Your task to perform on an android device: Go to display settings Image 0: 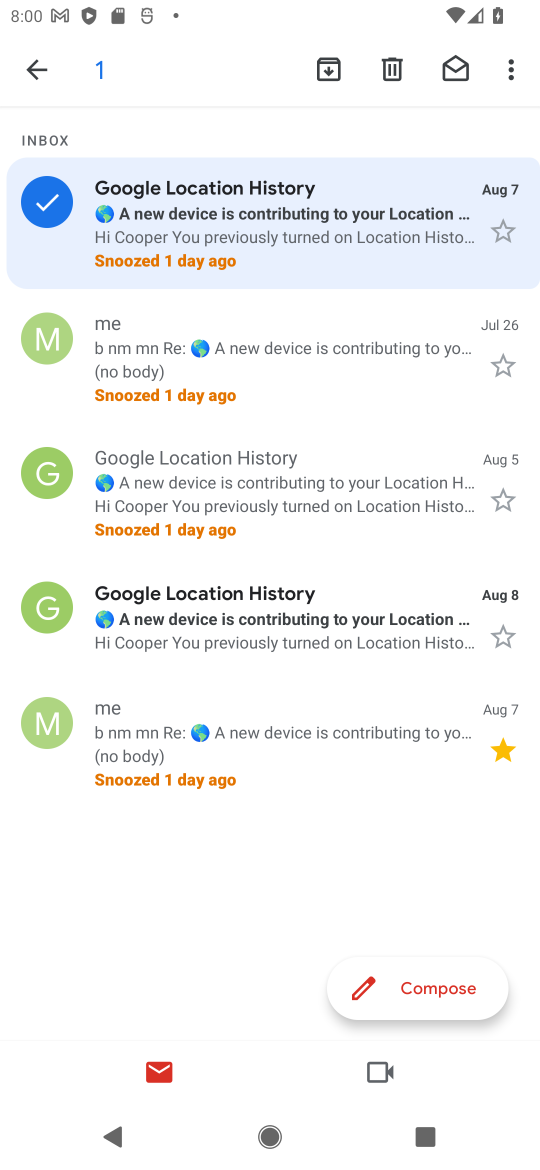
Step 0: press home button
Your task to perform on an android device: Go to display settings Image 1: 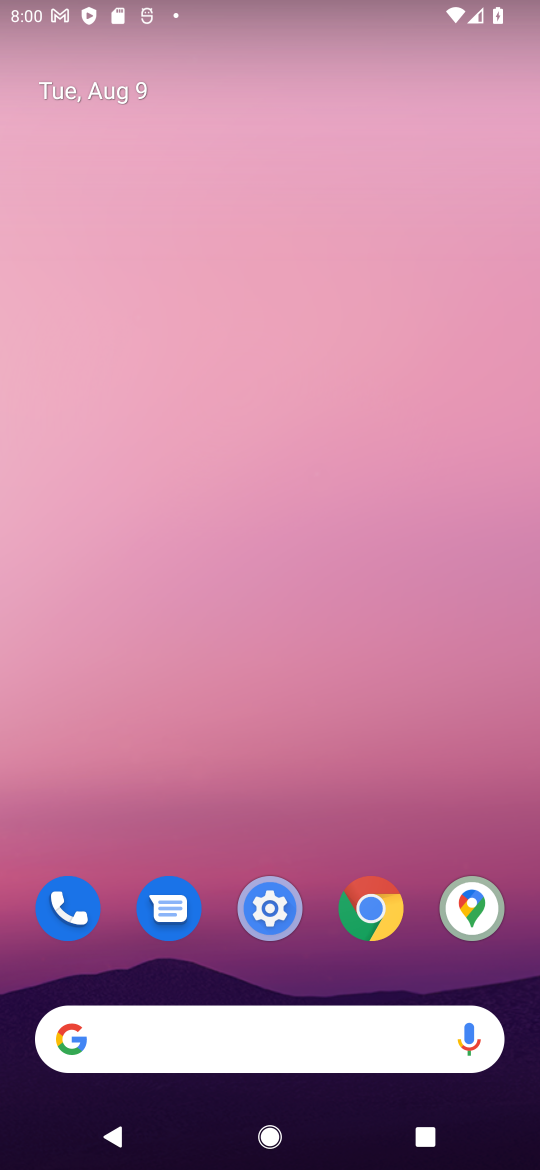
Step 1: drag from (334, 930) to (283, 330)
Your task to perform on an android device: Go to display settings Image 2: 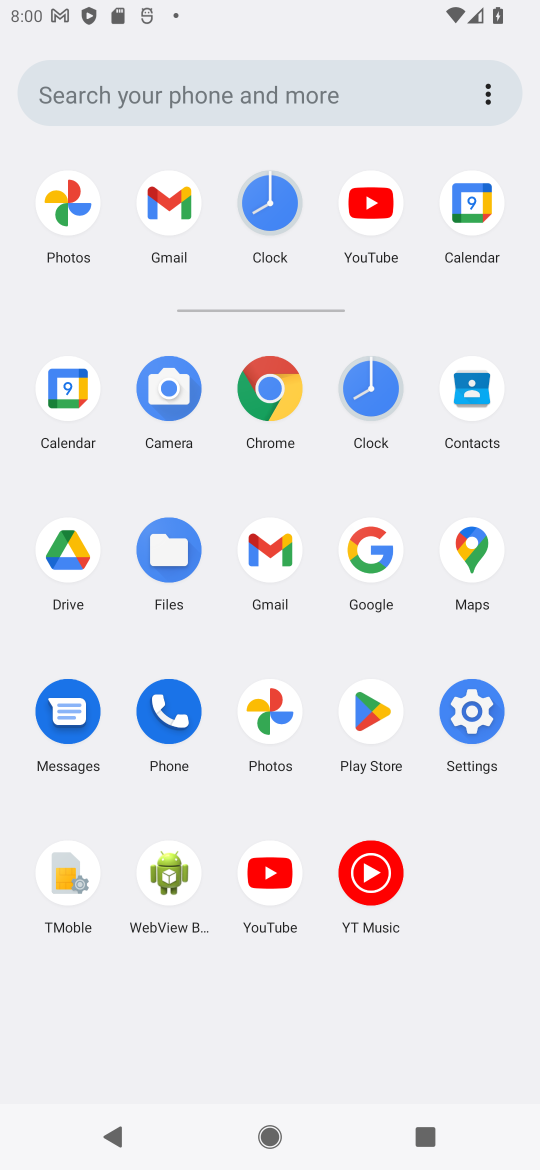
Step 2: click (485, 713)
Your task to perform on an android device: Go to display settings Image 3: 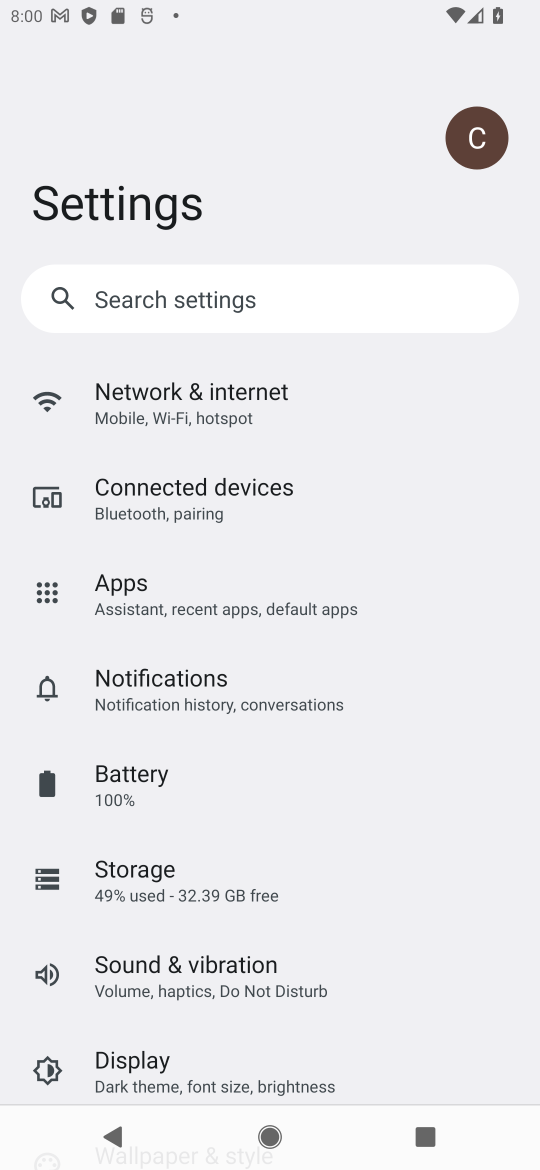
Step 3: click (138, 1070)
Your task to perform on an android device: Go to display settings Image 4: 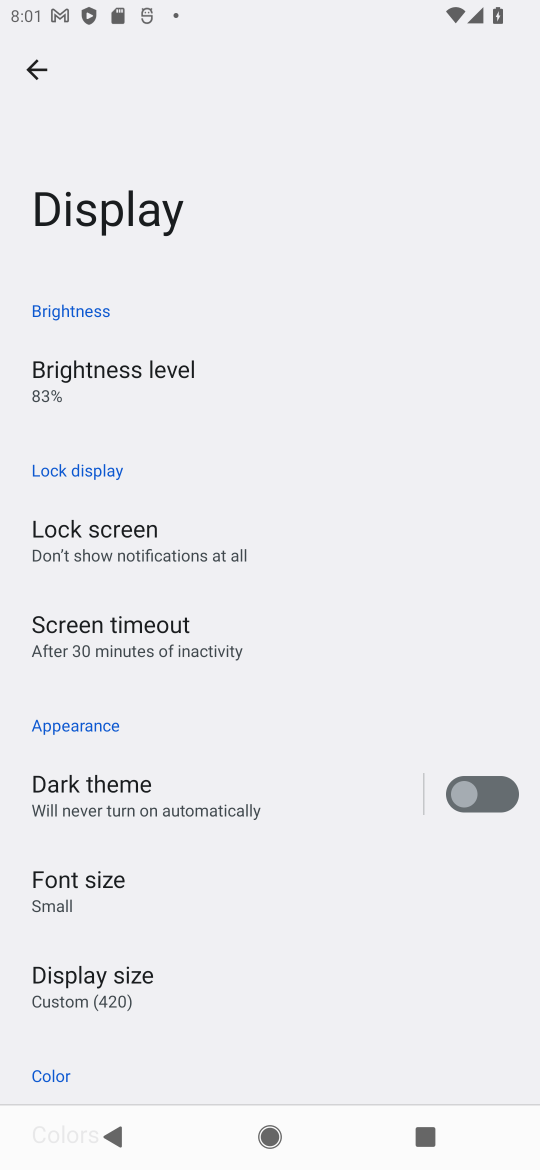
Step 4: task complete